Your task to perform on an android device: Open battery settings Image 0: 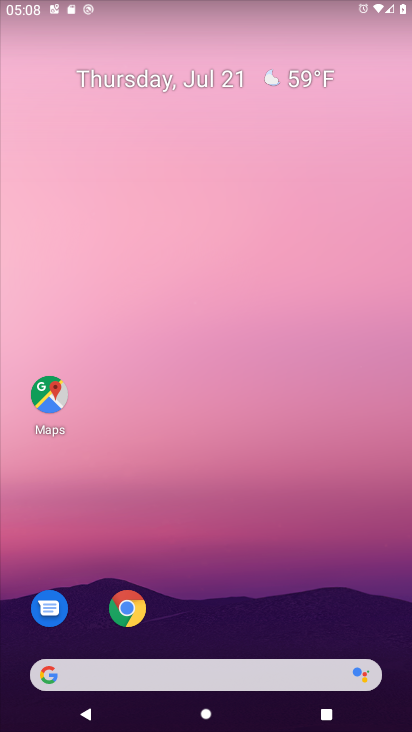
Step 0: drag from (308, 592) to (328, 11)
Your task to perform on an android device: Open battery settings Image 1: 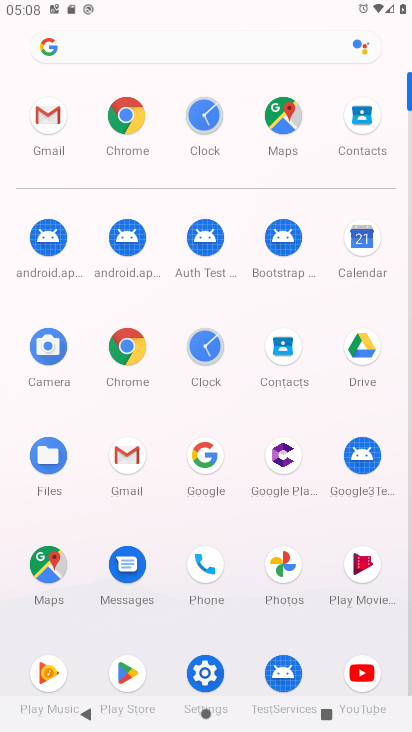
Step 1: click (214, 680)
Your task to perform on an android device: Open battery settings Image 2: 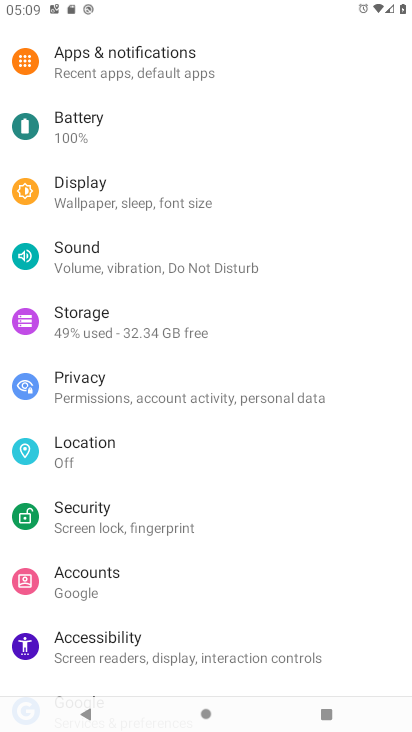
Step 2: click (90, 110)
Your task to perform on an android device: Open battery settings Image 3: 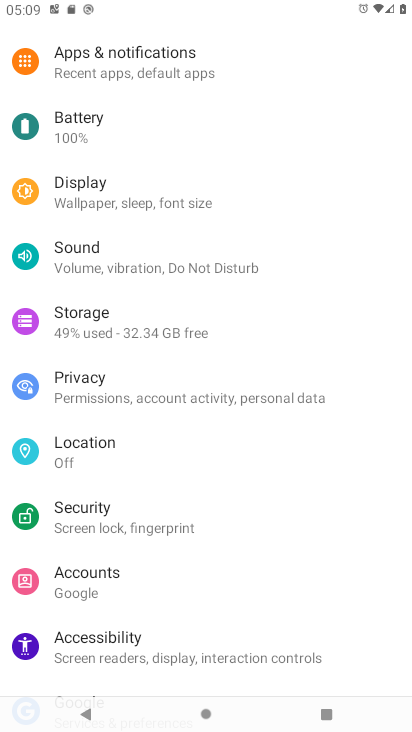
Step 3: click (90, 110)
Your task to perform on an android device: Open battery settings Image 4: 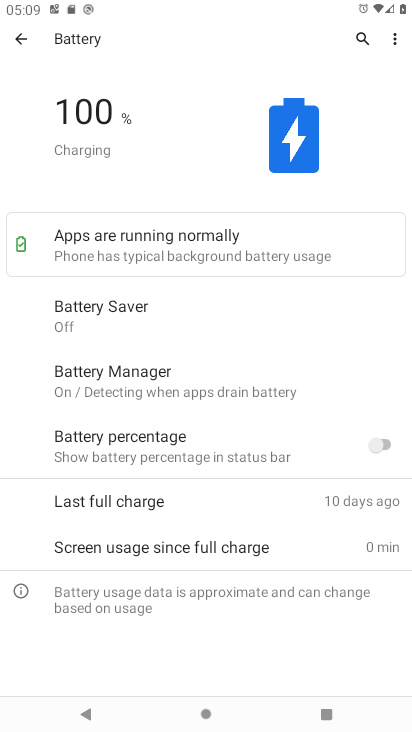
Step 4: task complete